Your task to perform on an android device: Clear all items from cart on ebay.com. Add "razer naga" to the cart on ebay.com, then select checkout. Image 0: 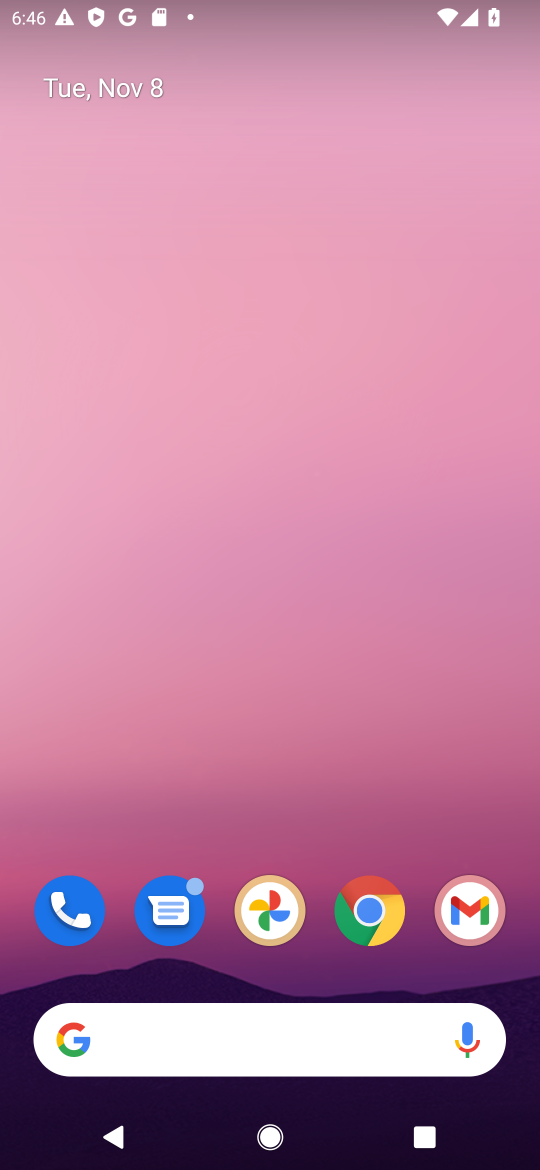
Step 0: click (386, 906)
Your task to perform on an android device: Clear all items from cart on ebay.com. Add "razer naga" to the cart on ebay.com, then select checkout. Image 1: 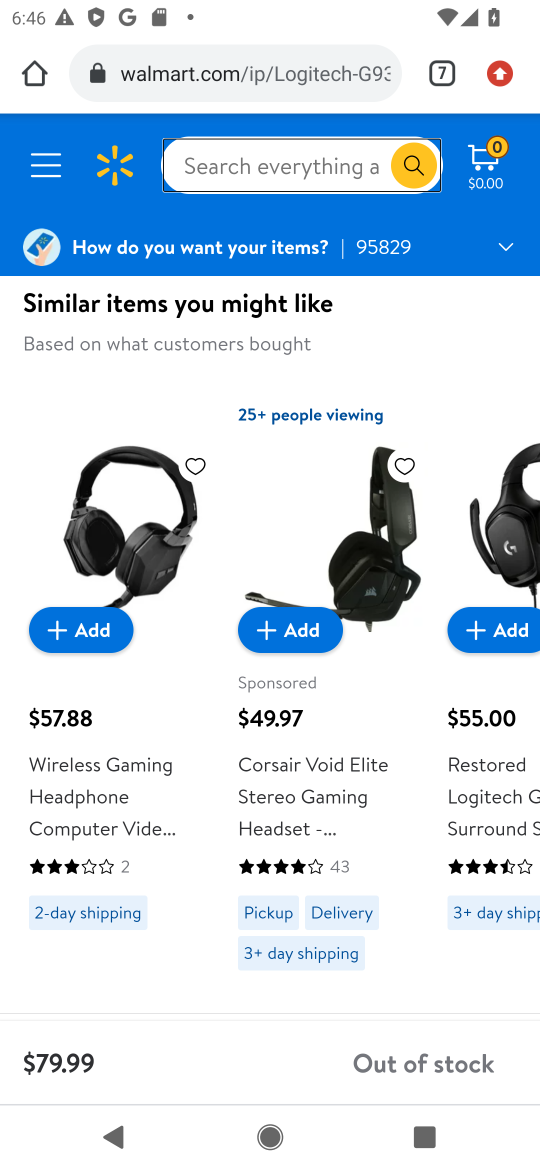
Step 1: click (445, 76)
Your task to perform on an android device: Clear all items from cart on ebay.com. Add "razer naga" to the cart on ebay.com, then select checkout. Image 2: 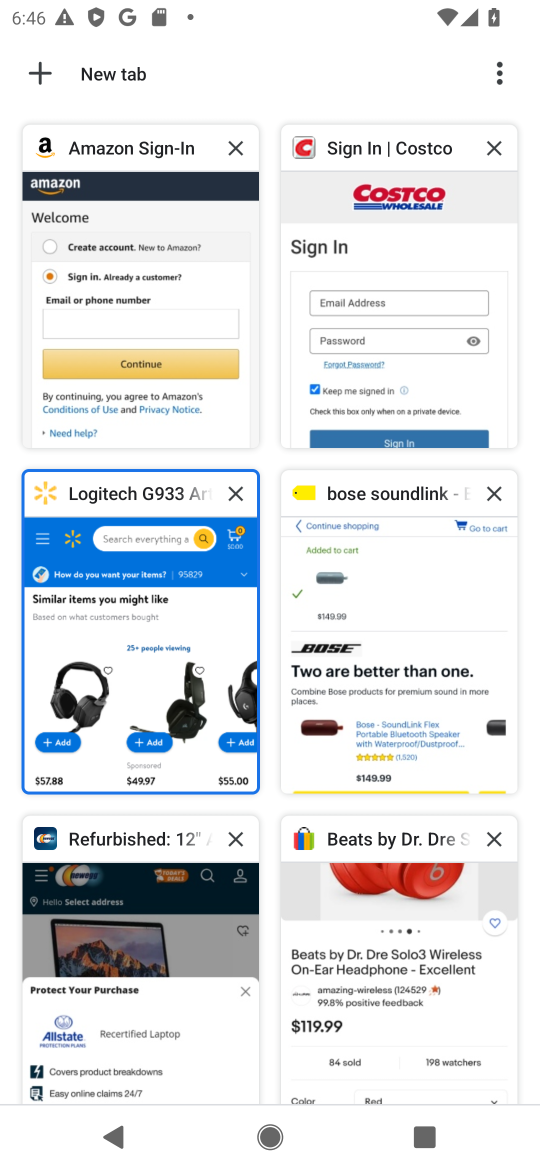
Step 2: click (341, 946)
Your task to perform on an android device: Clear all items from cart on ebay.com. Add "razer naga" to the cart on ebay.com, then select checkout. Image 3: 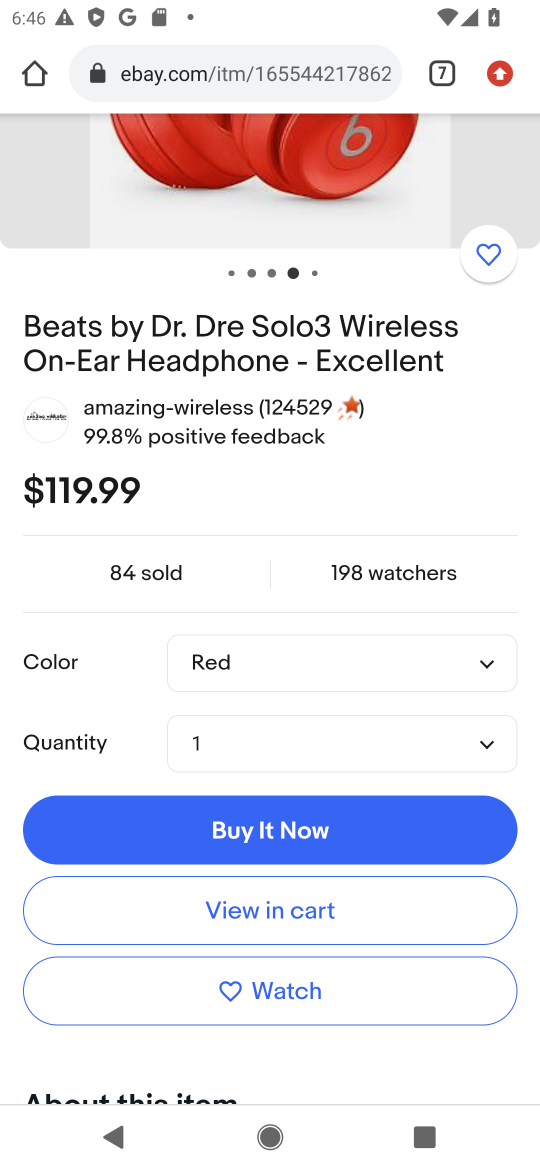
Step 3: drag from (412, 357) to (163, 924)
Your task to perform on an android device: Clear all items from cart on ebay.com. Add "razer naga" to the cart on ebay.com, then select checkout. Image 4: 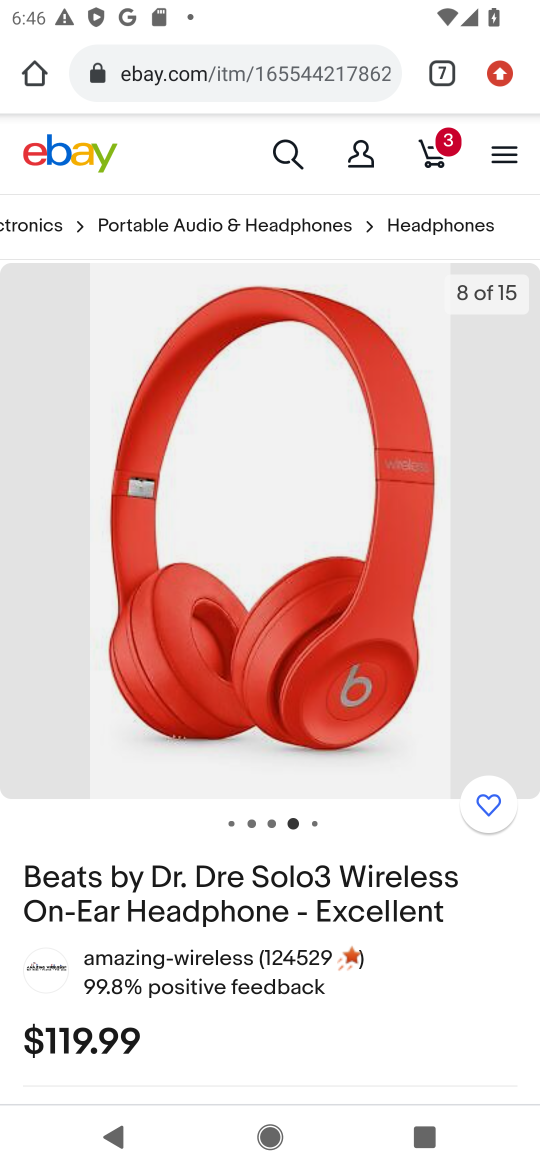
Step 4: click (290, 155)
Your task to perform on an android device: Clear all items from cart on ebay.com. Add "razer naga" to the cart on ebay.com, then select checkout. Image 5: 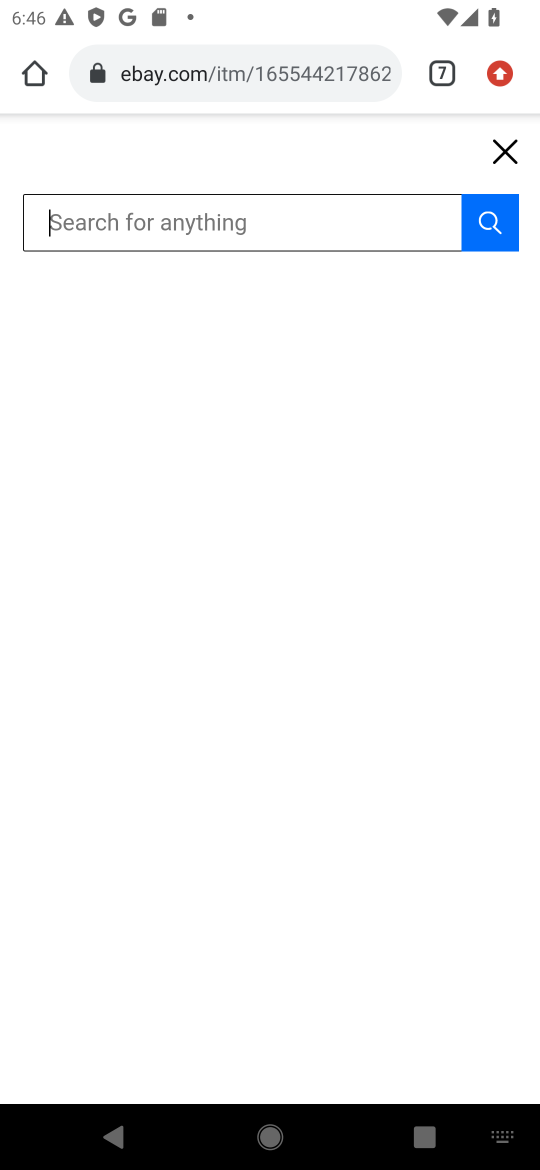
Step 5: type "razer naga""
Your task to perform on an android device: Clear all items from cart on ebay.com. Add "razer naga" to the cart on ebay.com, then select checkout. Image 6: 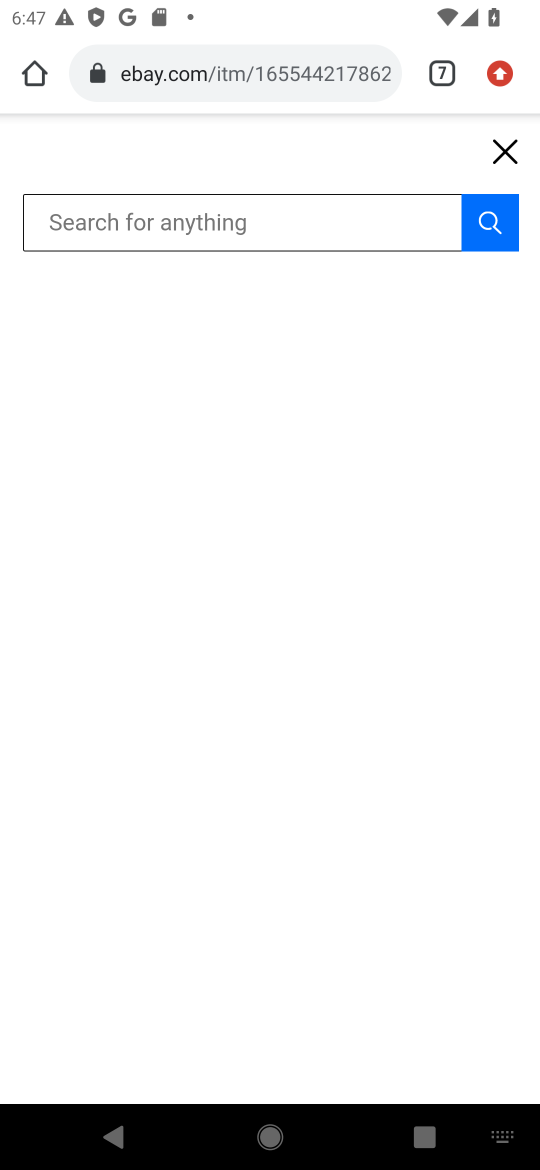
Step 6: type "razer naga""
Your task to perform on an android device: Clear all items from cart on ebay.com. Add "razer naga" to the cart on ebay.com, then select checkout. Image 7: 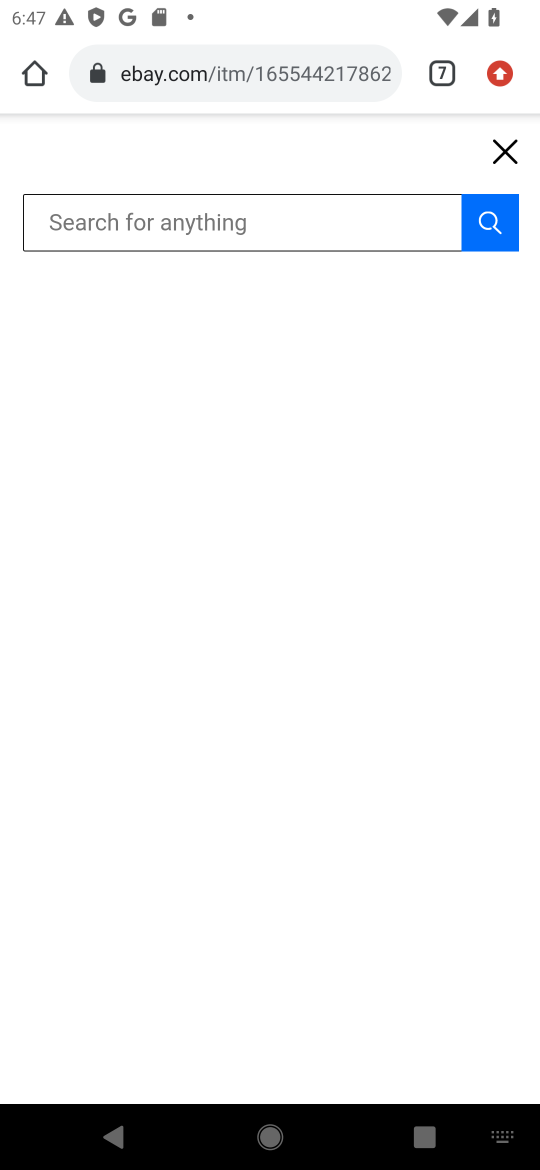
Step 7: click (215, 234)
Your task to perform on an android device: Clear all items from cart on ebay.com. Add "razer naga" to the cart on ebay.com, then select checkout. Image 8: 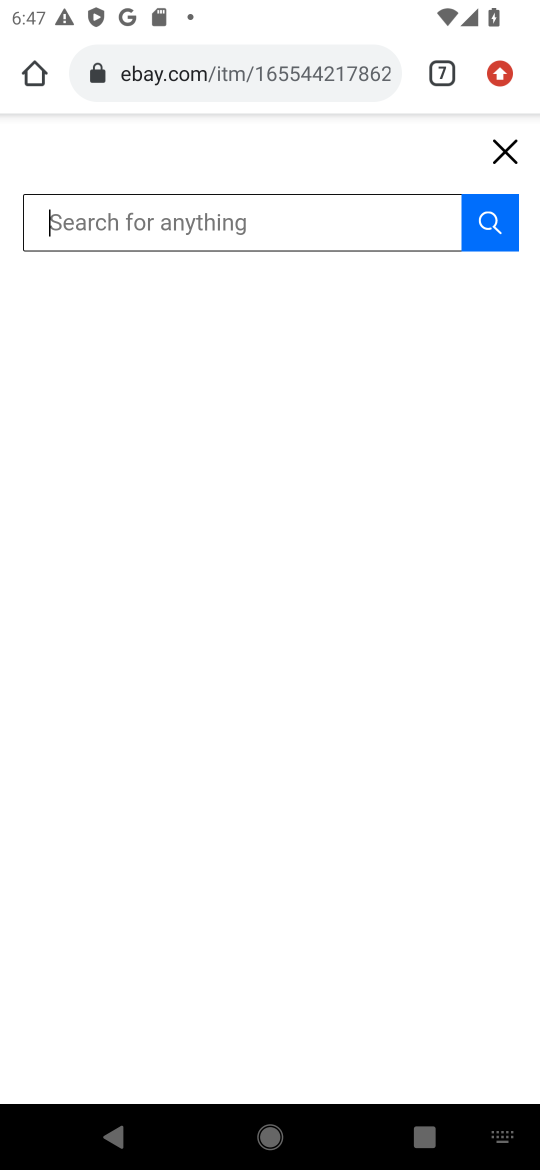
Step 8: click (502, 145)
Your task to perform on an android device: Clear all items from cart on ebay.com. Add "razer naga" to the cart on ebay.com, then select checkout. Image 9: 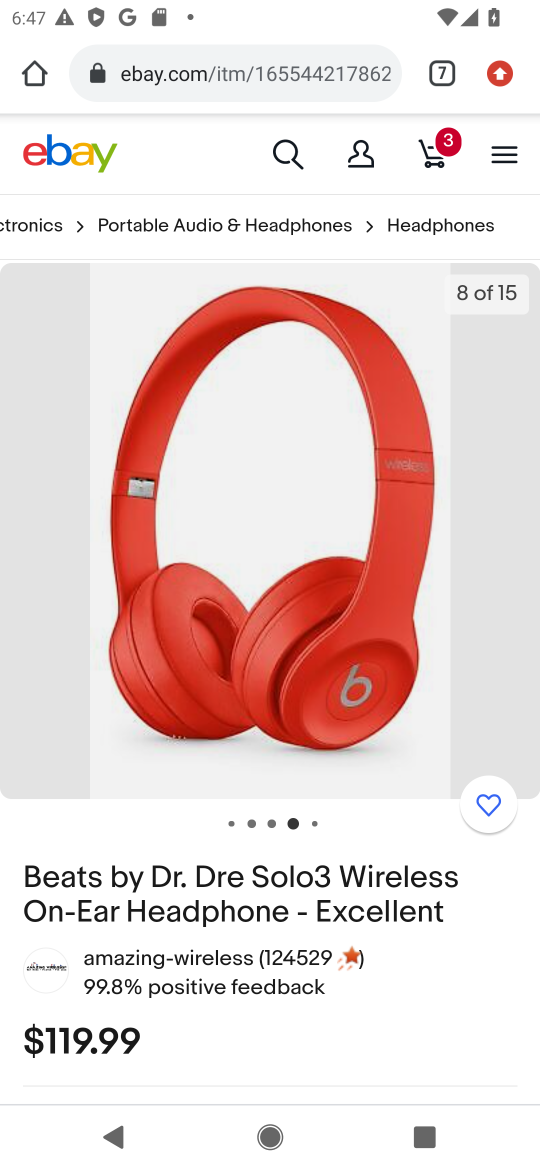
Step 9: click (276, 156)
Your task to perform on an android device: Clear all items from cart on ebay.com. Add "razer naga" to the cart on ebay.com, then select checkout. Image 10: 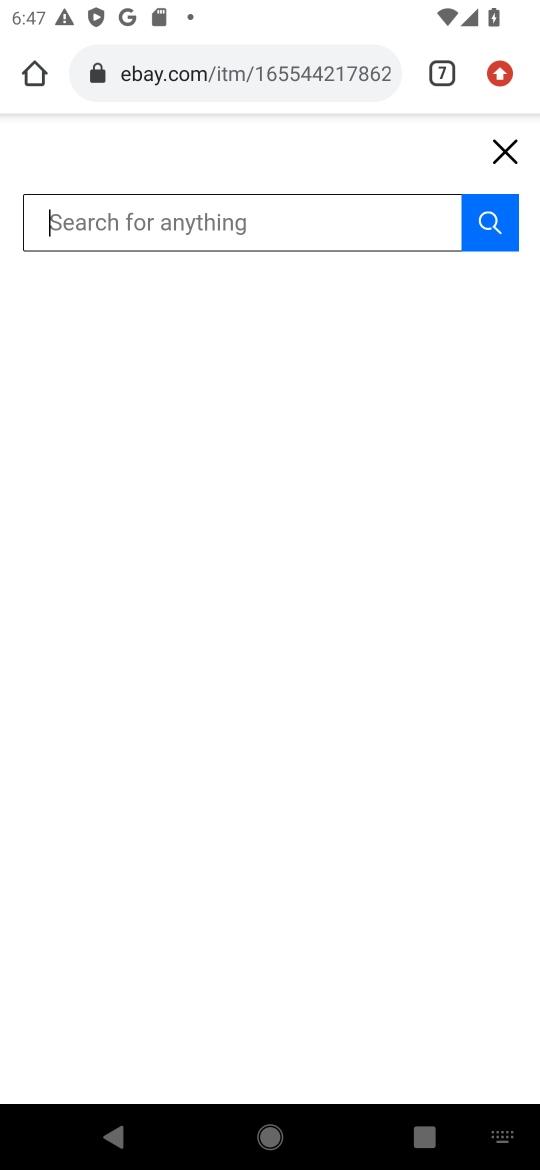
Step 10: type "razer naga""
Your task to perform on an android device: Clear all items from cart on ebay.com. Add "razer naga" to the cart on ebay.com, then select checkout. Image 11: 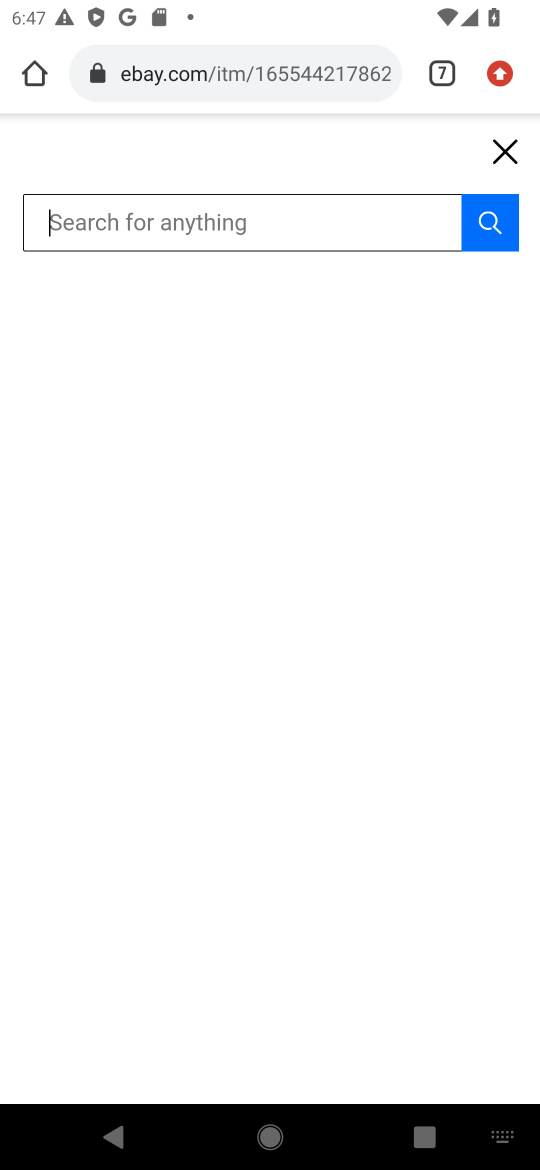
Step 11: click (490, 233)
Your task to perform on an android device: Clear all items from cart on ebay.com. Add "razer naga" to the cart on ebay.com, then select checkout. Image 12: 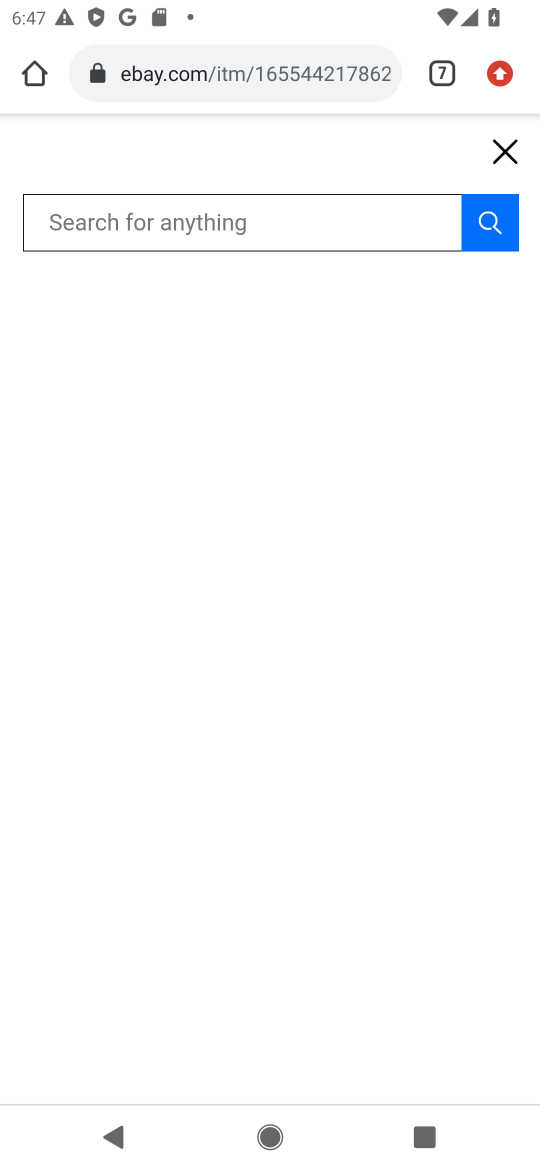
Step 12: click (507, 146)
Your task to perform on an android device: Clear all items from cart on ebay.com. Add "razer naga" to the cart on ebay.com, then select checkout. Image 13: 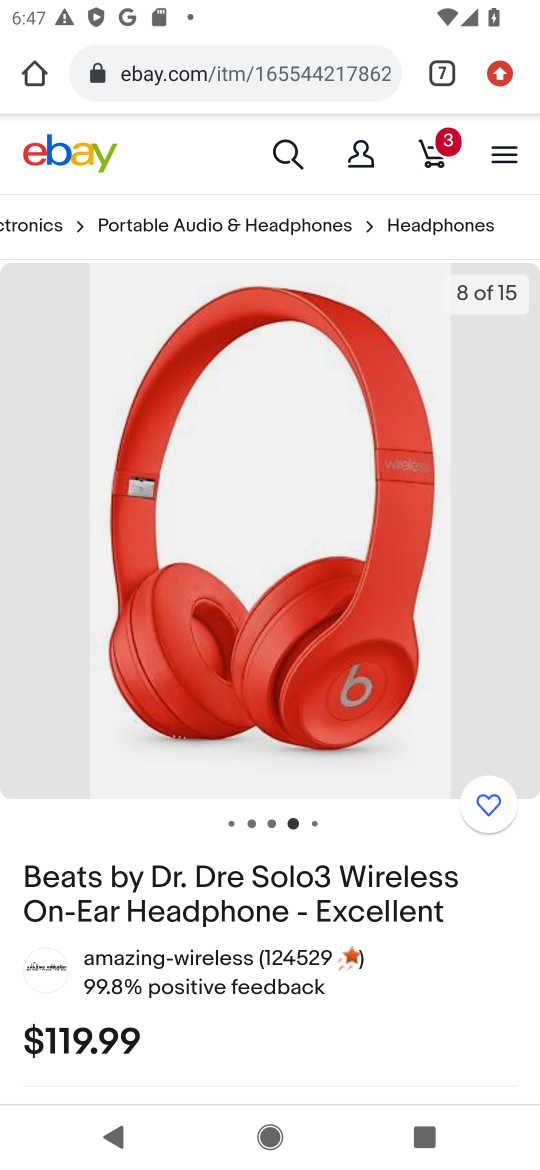
Step 13: click (287, 151)
Your task to perform on an android device: Clear all items from cart on ebay.com. Add "razer naga" to the cart on ebay.com, then select checkout. Image 14: 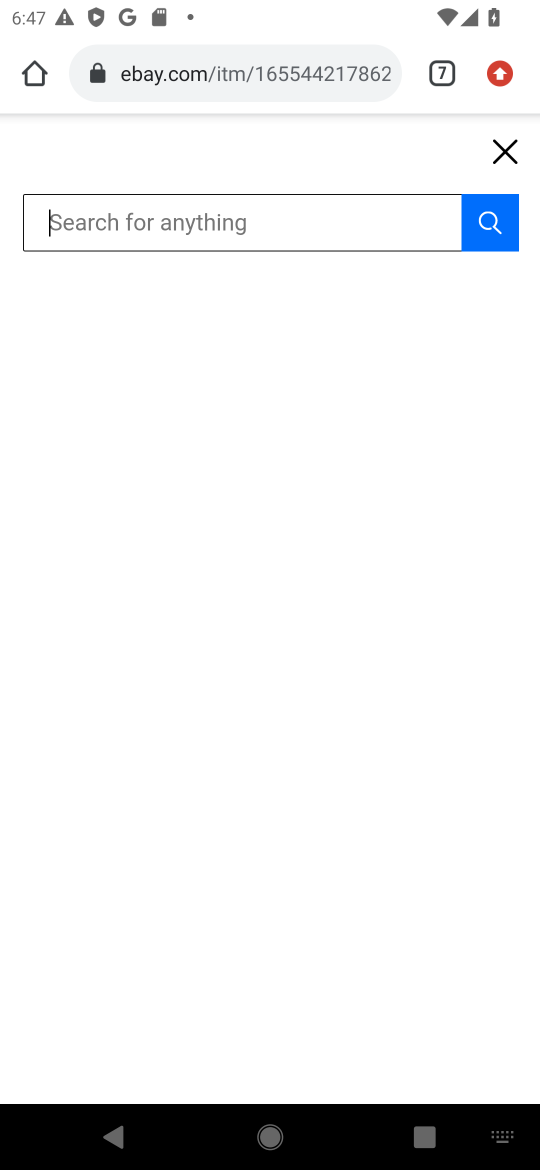
Step 14: type "razer naga""
Your task to perform on an android device: Clear all items from cart on ebay.com. Add "razer naga" to the cart on ebay.com, then select checkout. Image 15: 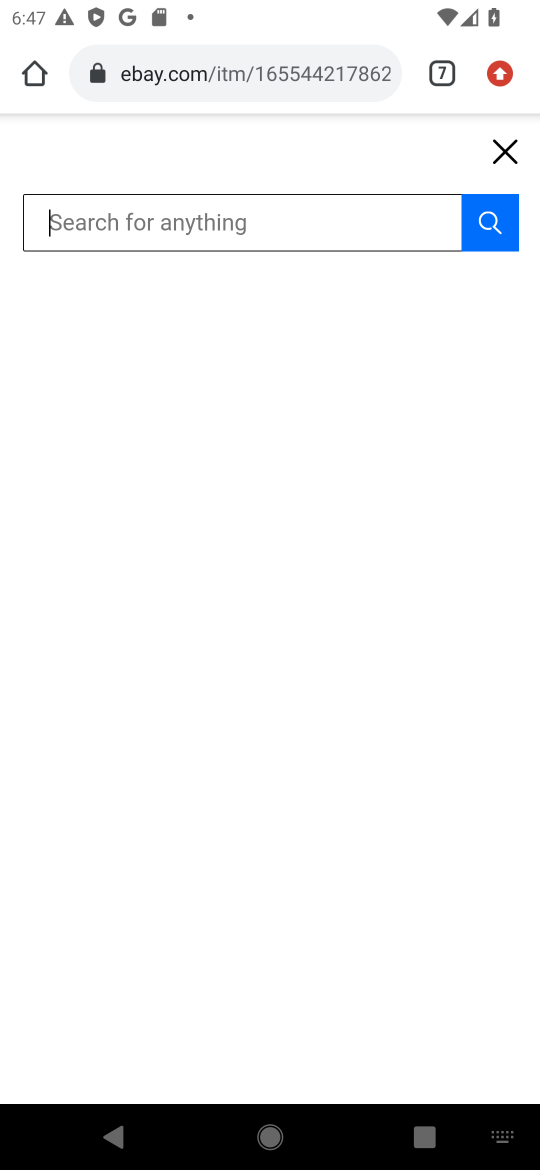
Step 15: click (512, 159)
Your task to perform on an android device: Clear all items from cart on ebay.com. Add "razer naga" to the cart on ebay.com, then select checkout. Image 16: 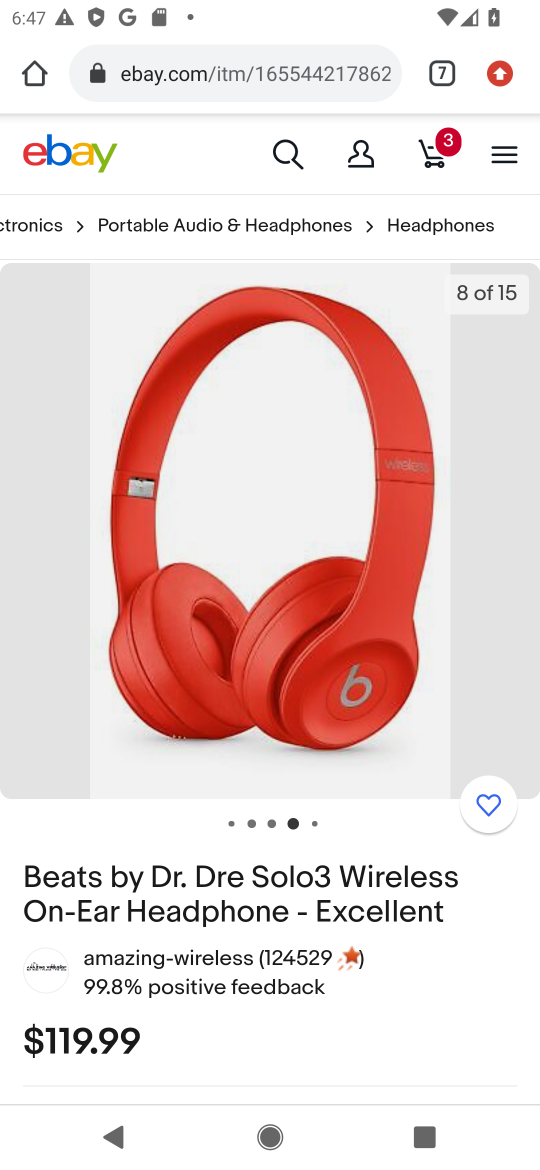
Step 16: click (303, 151)
Your task to perform on an android device: Clear all items from cart on ebay.com. Add "razer naga" to the cart on ebay.com, then select checkout. Image 17: 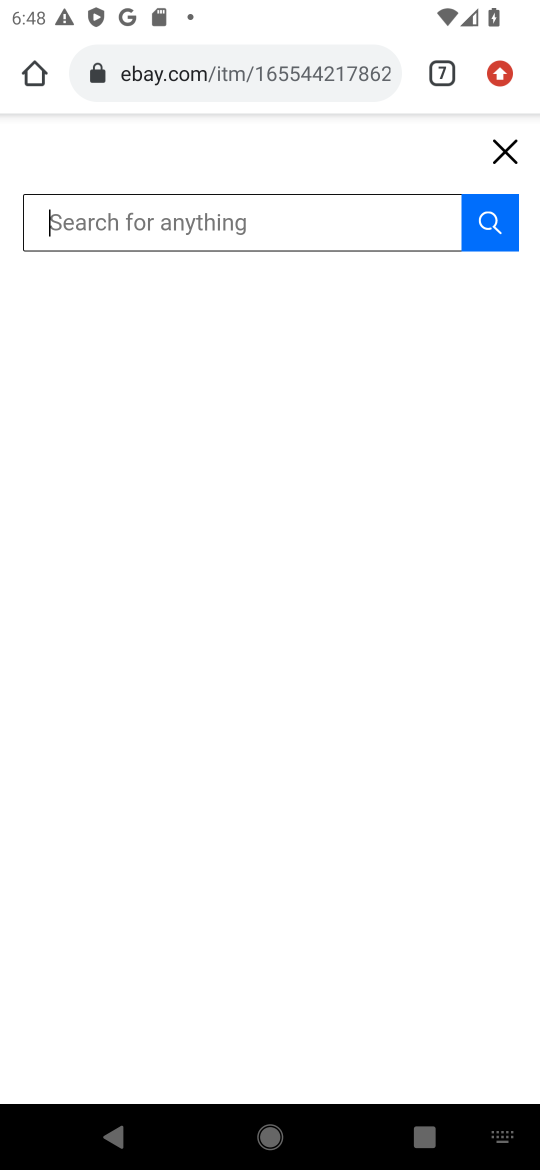
Step 17: type "razer naga""
Your task to perform on an android device: Clear all items from cart on ebay.com. Add "razer naga" to the cart on ebay.com, then select checkout. Image 18: 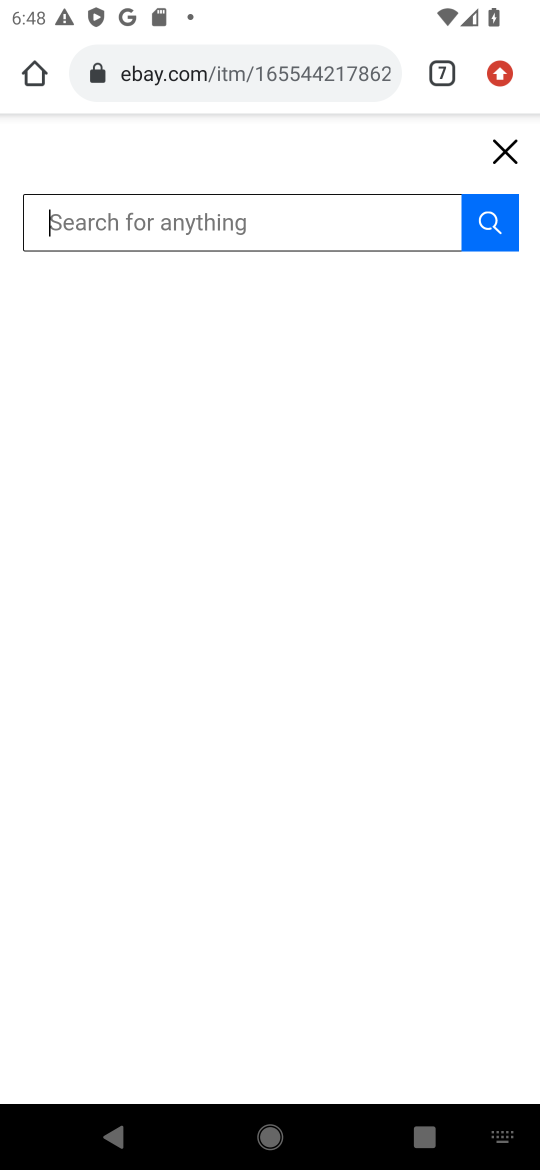
Step 18: click (450, 81)
Your task to perform on an android device: Clear all items from cart on ebay.com. Add "razer naga" to the cart on ebay.com, then select checkout. Image 19: 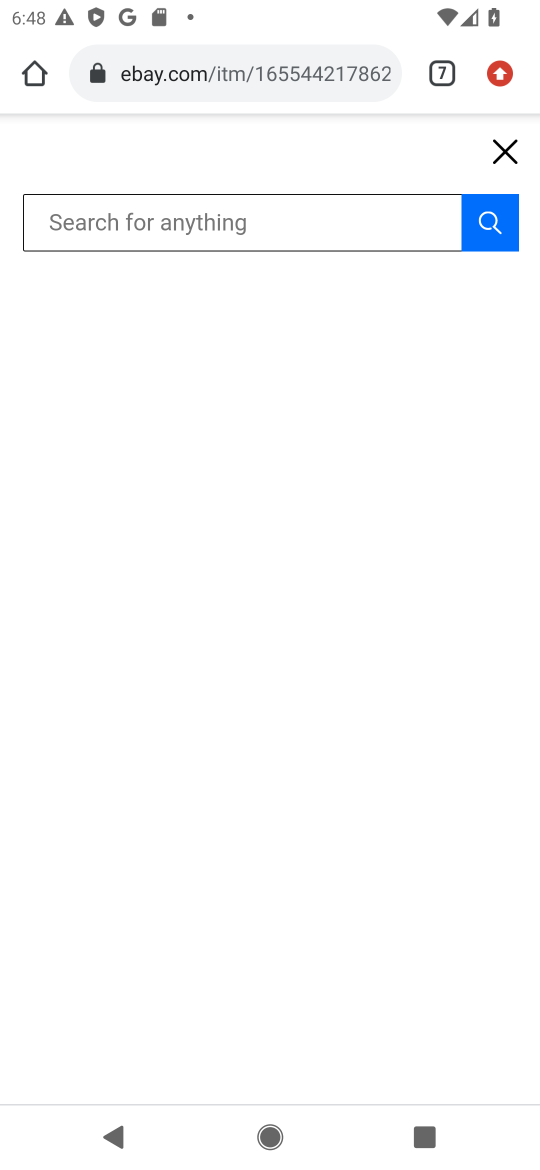
Step 19: click (436, 72)
Your task to perform on an android device: Clear all items from cart on ebay.com. Add "razer naga" to the cart on ebay.com, then select checkout. Image 20: 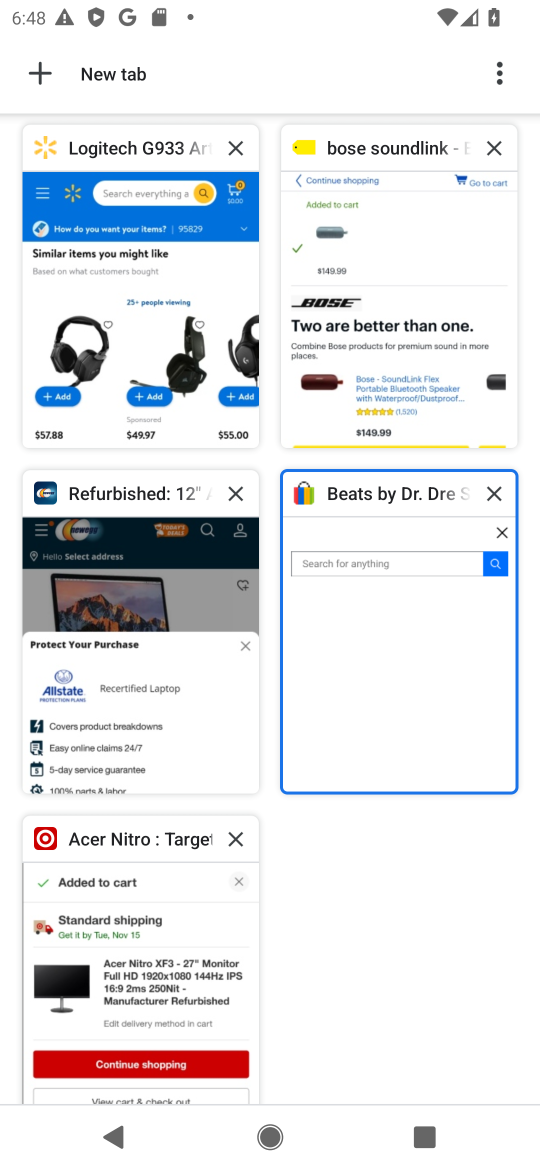
Step 20: click (496, 489)
Your task to perform on an android device: Clear all items from cart on ebay.com. Add "razer naga" to the cart on ebay.com, then select checkout. Image 21: 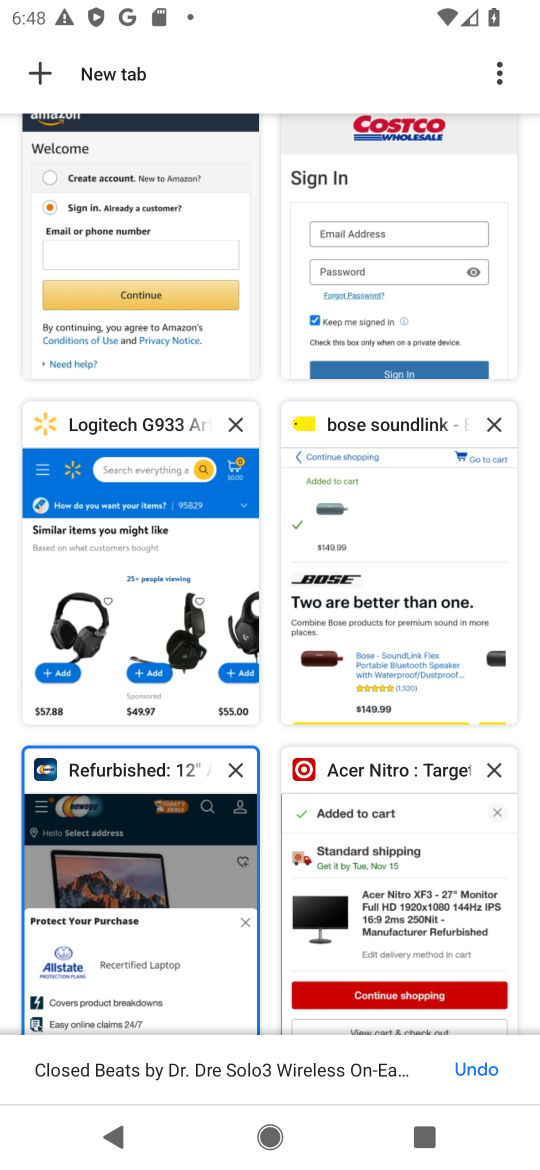
Step 21: click (44, 76)
Your task to perform on an android device: Clear all items from cart on ebay.com. Add "razer naga" to the cart on ebay.com, then select checkout. Image 22: 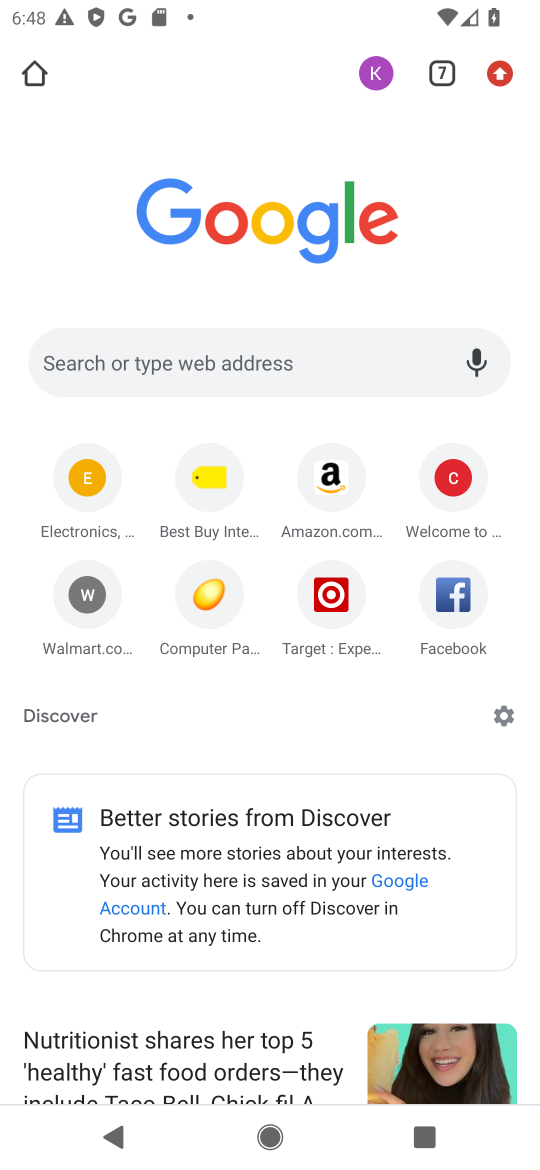
Step 22: click (243, 362)
Your task to perform on an android device: Clear all items from cart on ebay.com. Add "razer naga" to the cart on ebay.com, then select checkout. Image 23: 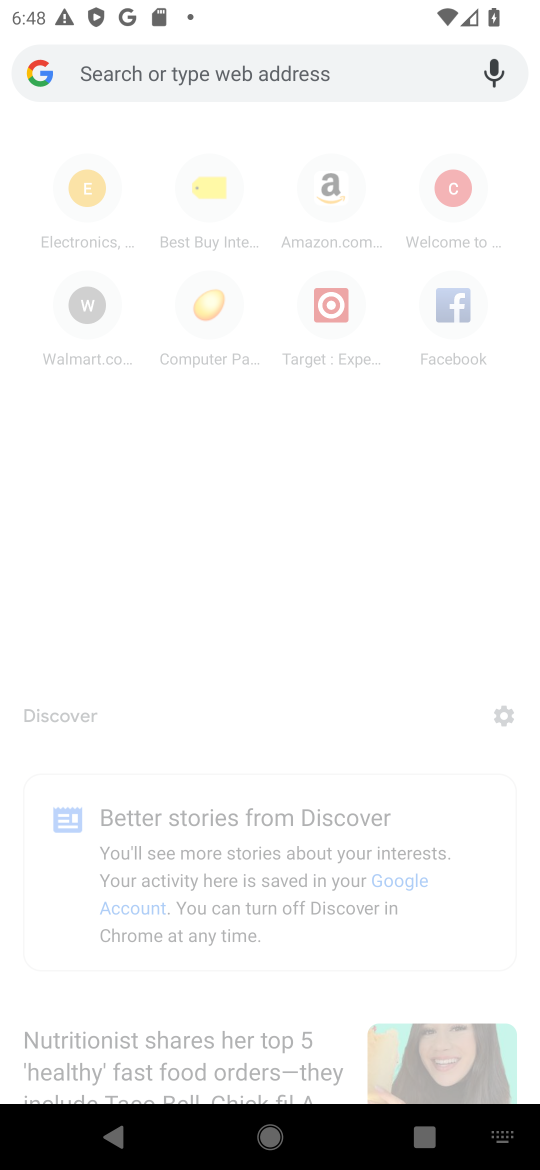
Step 23: type "ebay"
Your task to perform on an android device: Clear all items from cart on ebay.com. Add "razer naga" to the cart on ebay.com, then select checkout. Image 24: 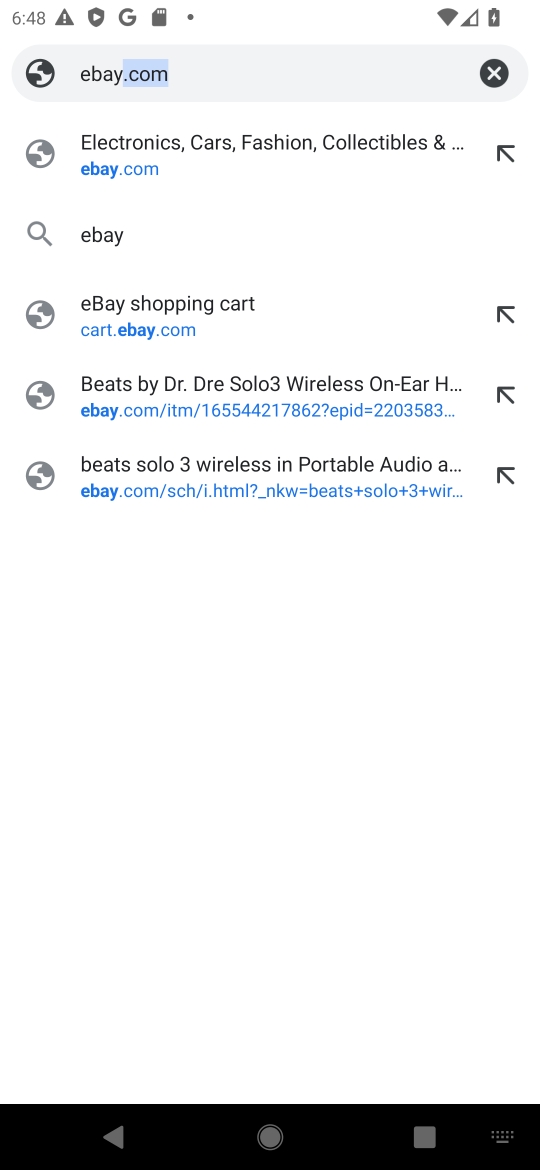
Step 24: click (141, 152)
Your task to perform on an android device: Clear all items from cart on ebay.com. Add "razer naga" to the cart on ebay.com, then select checkout. Image 25: 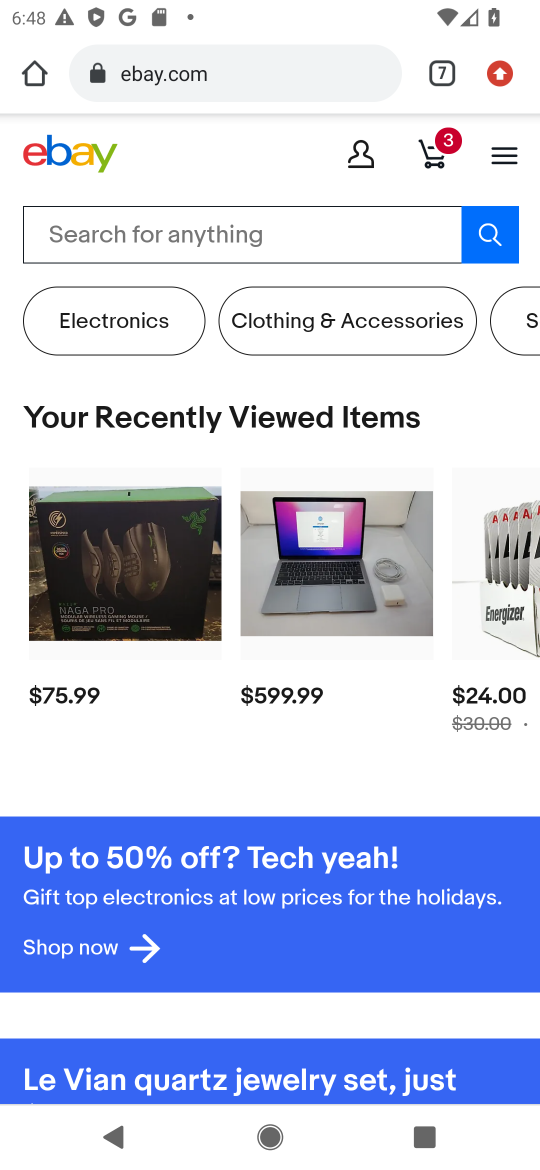
Step 25: click (229, 234)
Your task to perform on an android device: Clear all items from cart on ebay.com. Add "razer naga" to the cart on ebay.com, then select checkout. Image 26: 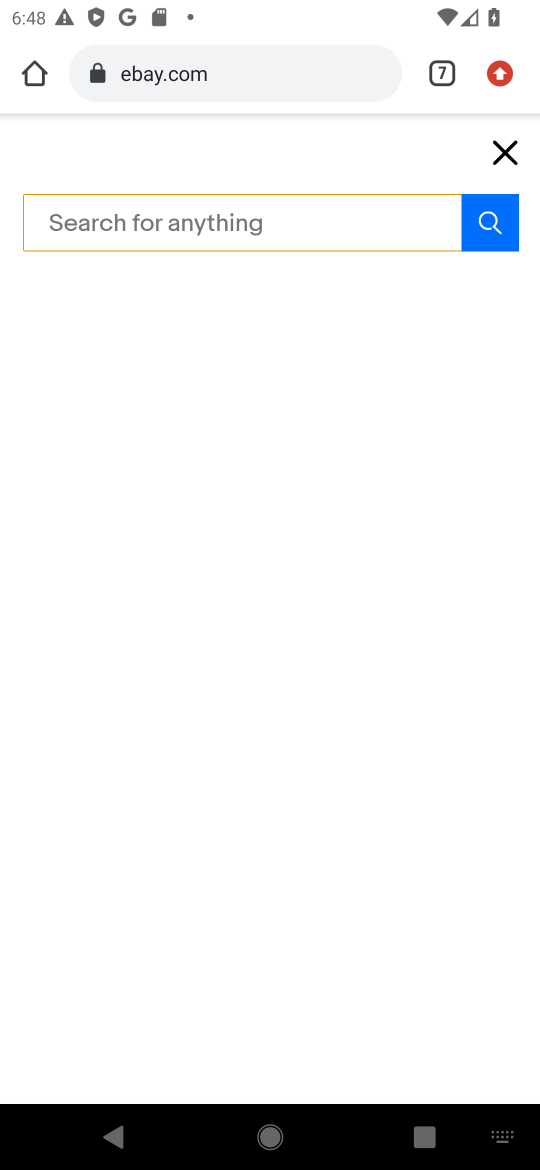
Step 26: type "razer naga"
Your task to perform on an android device: Clear all items from cart on ebay.com. Add "razer naga" to the cart on ebay.com, then select checkout. Image 27: 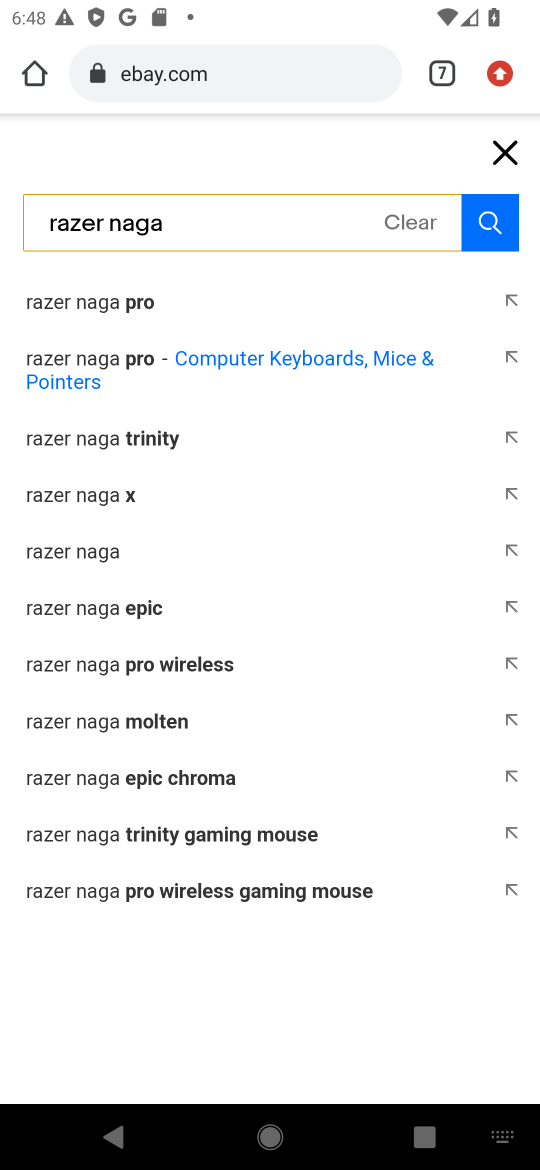
Step 27: click (126, 351)
Your task to perform on an android device: Clear all items from cart on ebay.com. Add "razer naga" to the cart on ebay.com, then select checkout. Image 28: 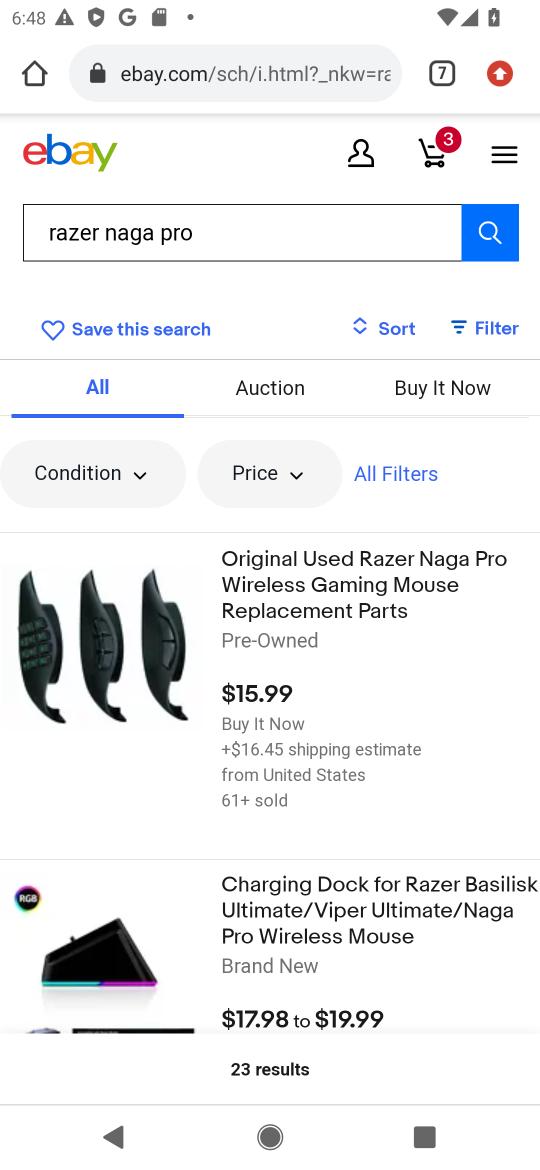
Step 28: click (349, 581)
Your task to perform on an android device: Clear all items from cart on ebay.com. Add "razer naga" to the cart on ebay.com, then select checkout. Image 29: 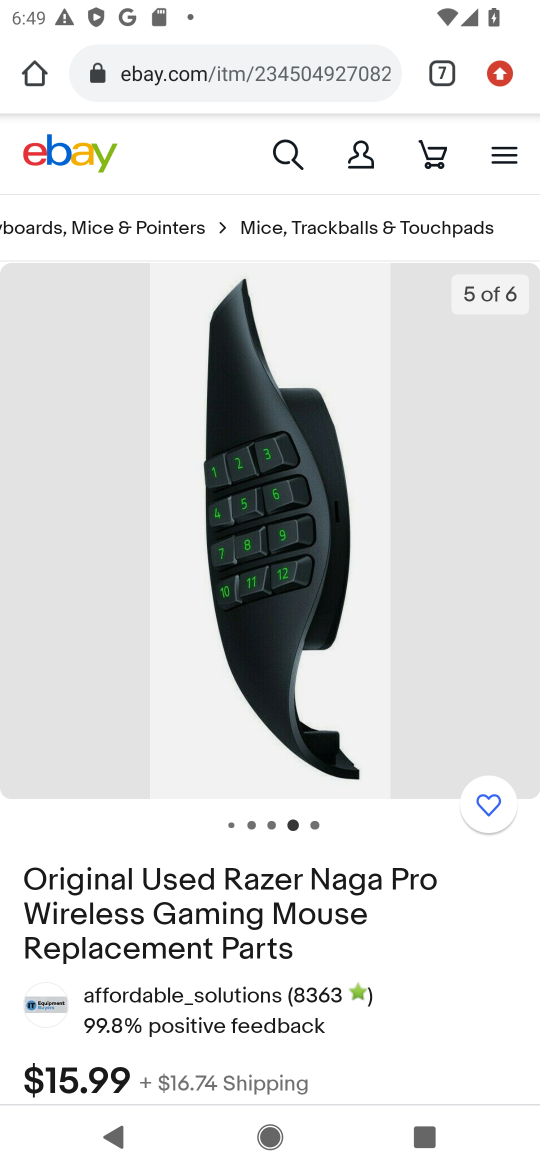
Step 29: drag from (326, 991) to (442, 200)
Your task to perform on an android device: Clear all items from cart on ebay.com. Add "razer naga" to the cart on ebay.com, then select checkout. Image 30: 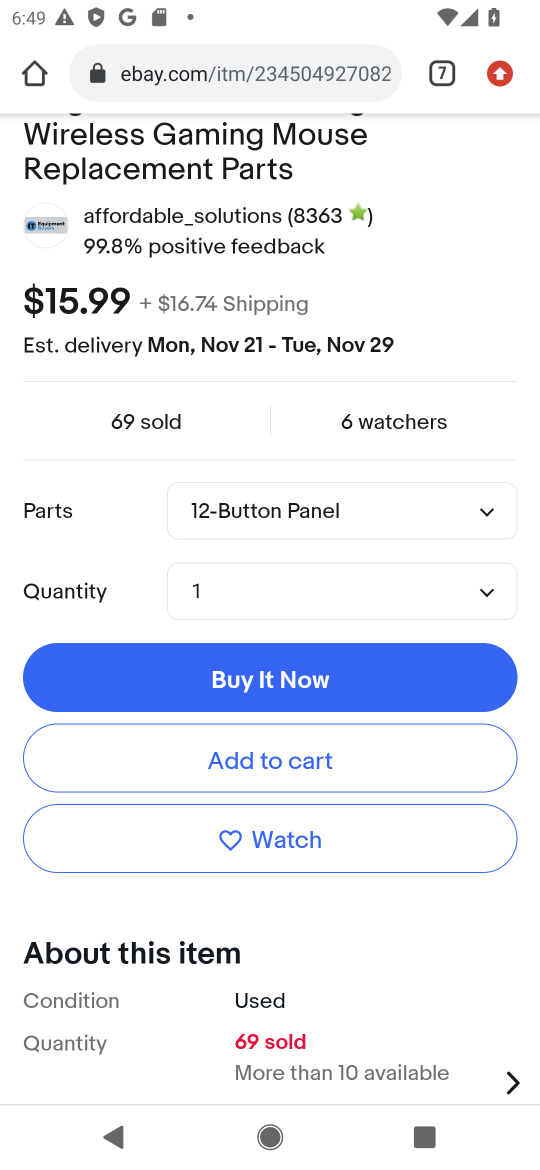
Step 30: click (326, 751)
Your task to perform on an android device: Clear all items from cart on ebay.com. Add "razer naga" to the cart on ebay.com, then select checkout. Image 31: 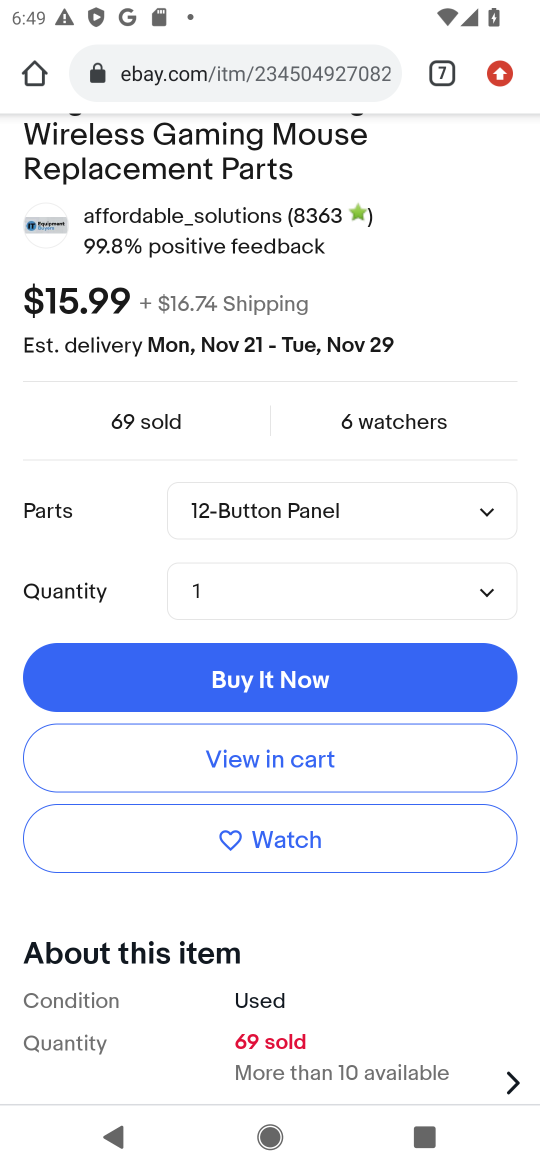
Step 31: click (326, 751)
Your task to perform on an android device: Clear all items from cart on ebay.com. Add "razer naga" to the cart on ebay.com, then select checkout. Image 32: 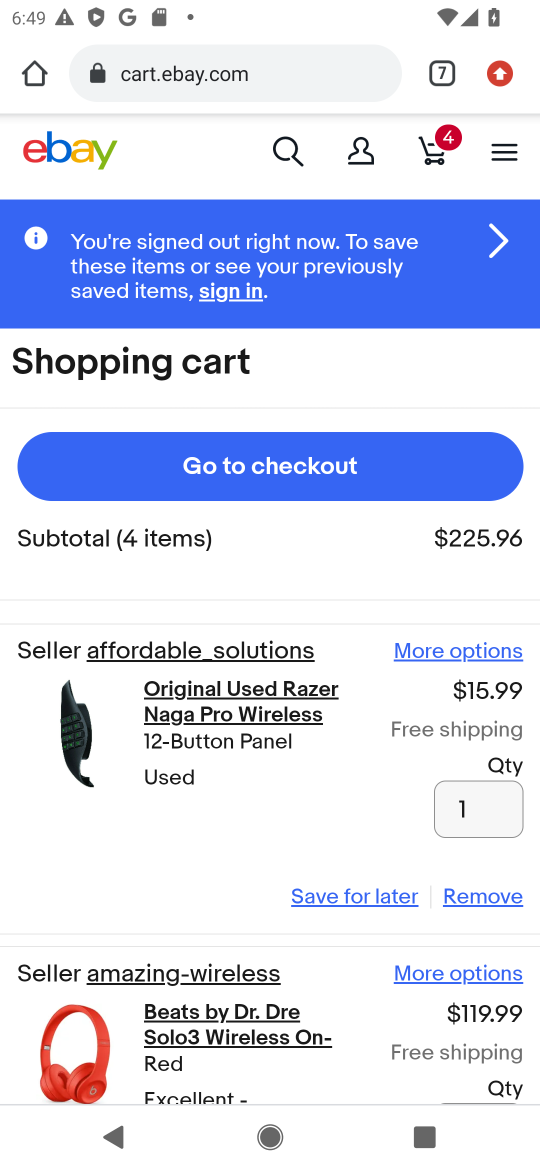
Step 32: click (362, 450)
Your task to perform on an android device: Clear all items from cart on ebay.com. Add "razer naga" to the cart on ebay.com, then select checkout. Image 33: 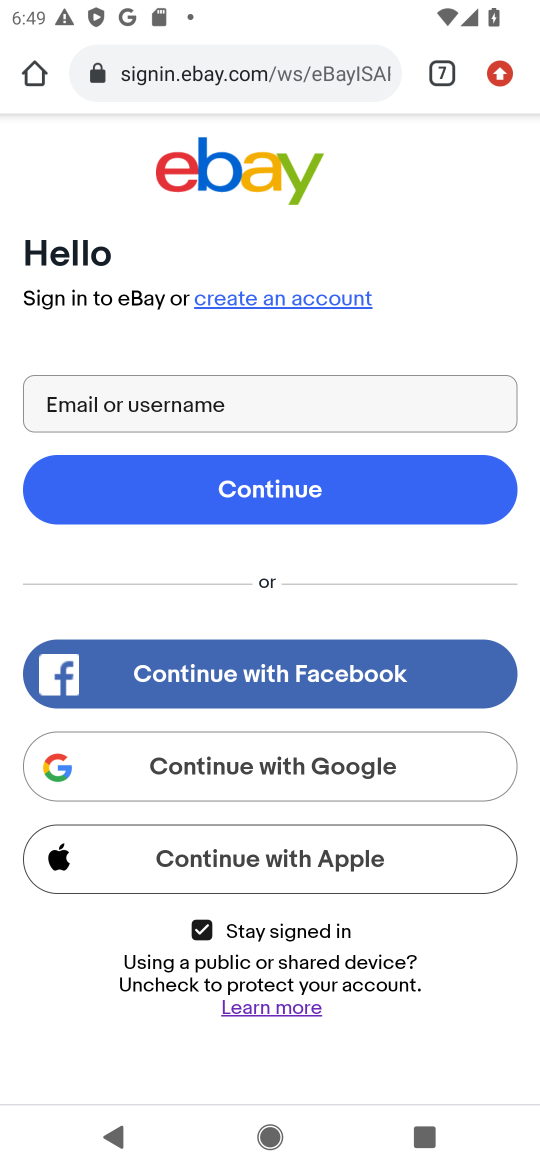
Step 33: task complete